Your task to perform on an android device: Open Android settings Image 0: 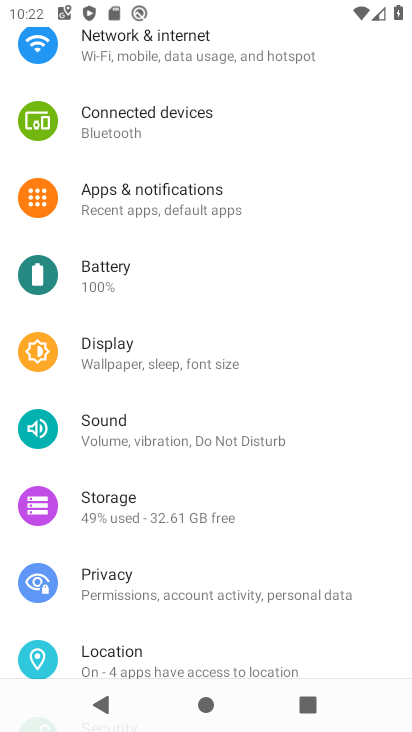
Step 0: press home button
Your task to perform on an android device: Open Android settings Image 1: 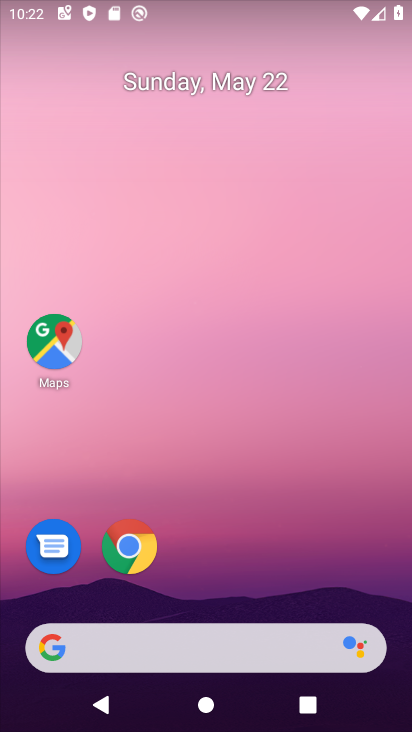
Step 1: drag from (197, 592) to (268, 8)
Your task to perform on an android device: Open Android settings Image 2: 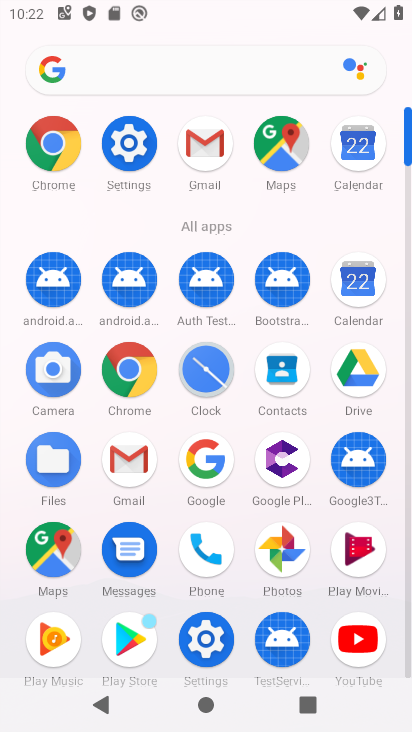
Step 2: click (132, 153)
Your task to perform on an android device: Open Android settings Image 3: 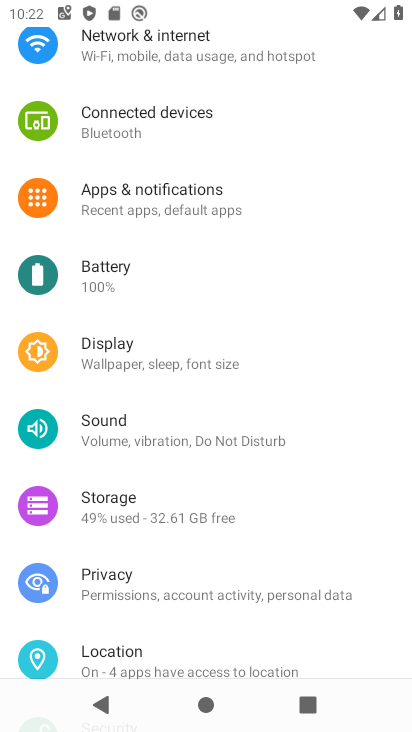
Step 3: drag from (174, 603) to (214, 54)
Your task to perform on an android device: Open Android settings Image 4: 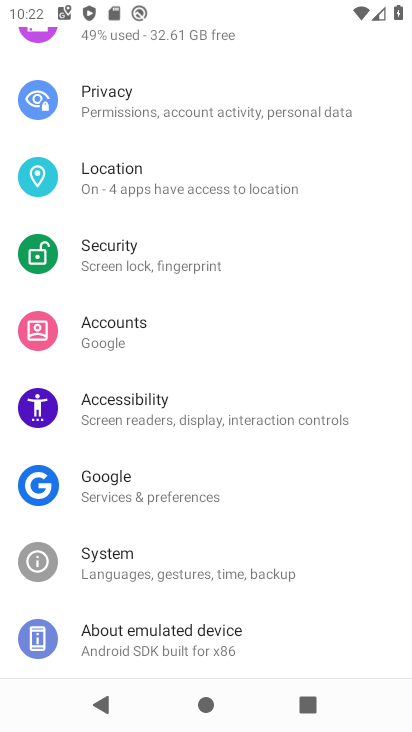
Step 4: drag from (138, 563) to (182, 16)
Your task to perform on an android device: Open Android settings Image 5: 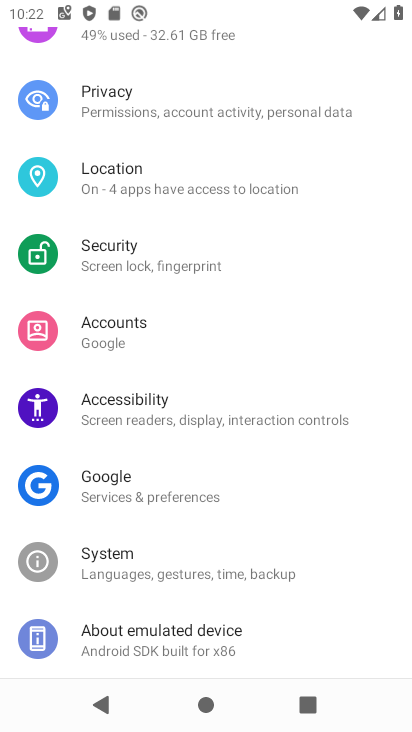
Step 5: click (135, 628)
Your task to perform on an android device: Open Android settings Image 6: 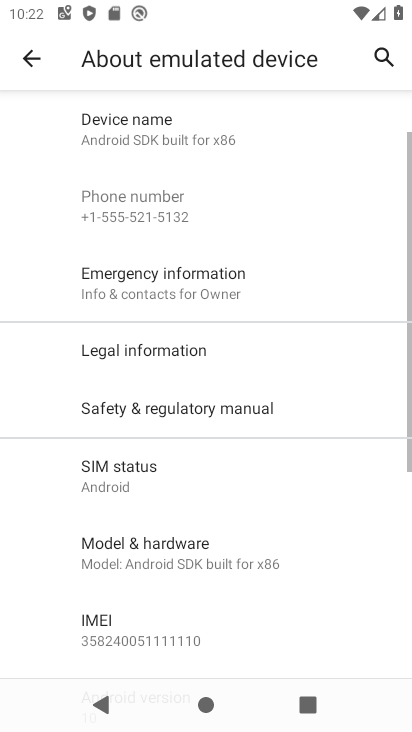
Step 6: drag from (168, 567) to (238, 158)
Your task to perform on an android device: Open Android settings Image 7: 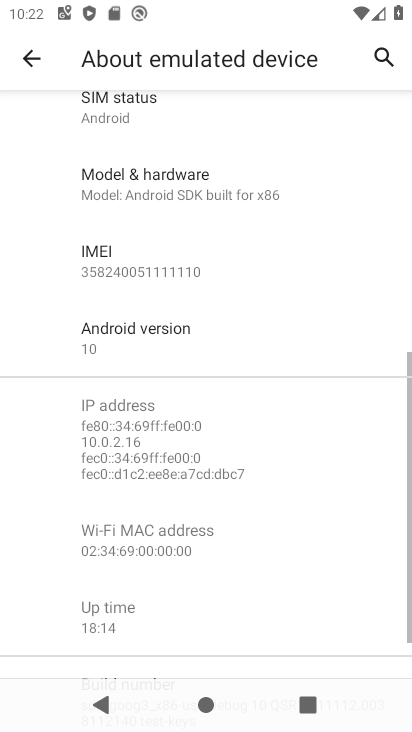
Step 7: click (145, 350)
Your task to perform on an android device: Open Android settings Image 8: 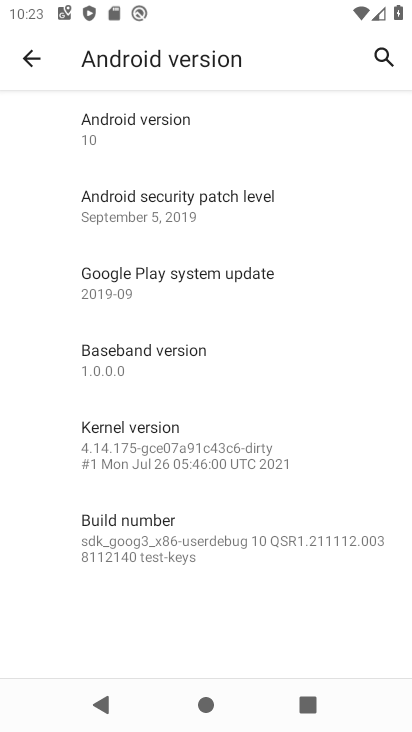
Step 8: task complete